Your task to perform on an android device: Open accessibility settings Image 0: 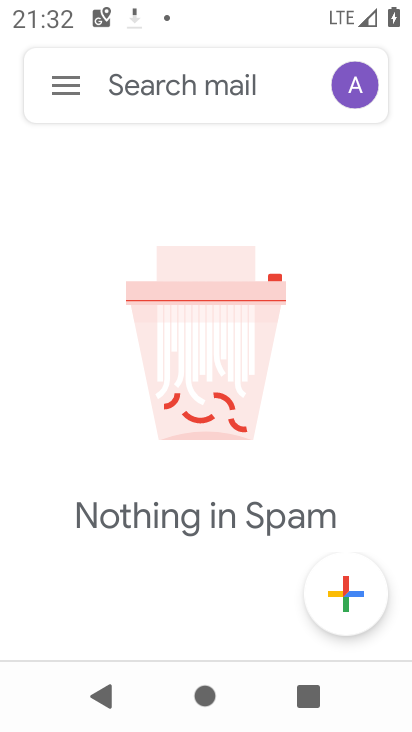
Step 0: press back button
Your task to perform on an android device: Open accessibility settings Image 1: 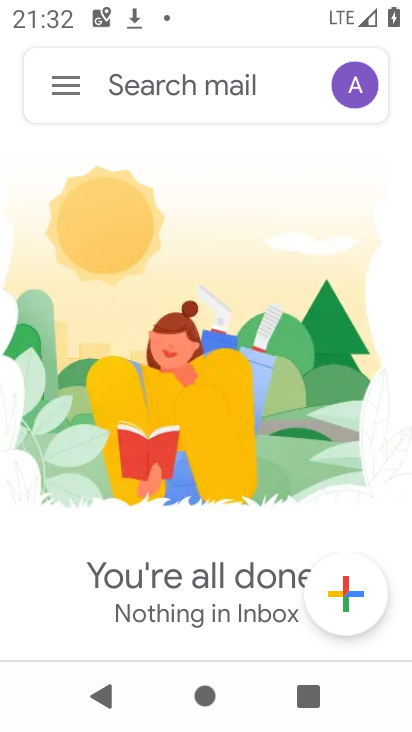
Step 1: press back button
Your task to perform on an android device: Open accessibility settings Image 2: 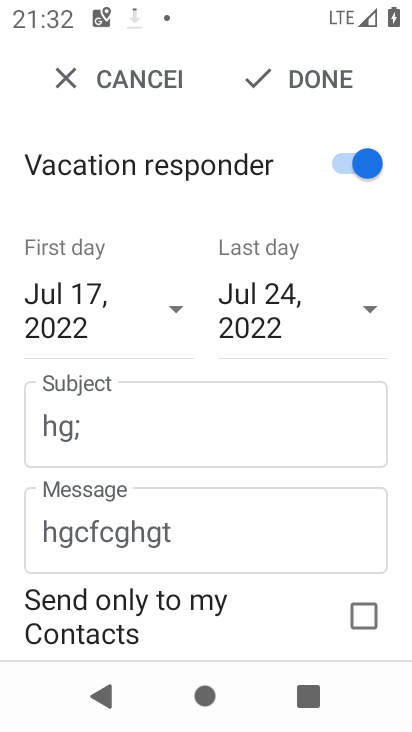
Step 2: press back button
Your task to perform on an android device: Open accessibility settings Image 3: 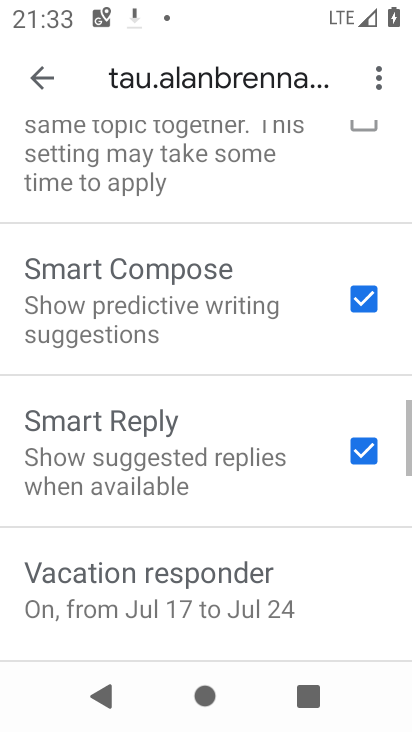
Step 3: press back button
Your task to perform on an android device: Open accessibility settings Image 4: 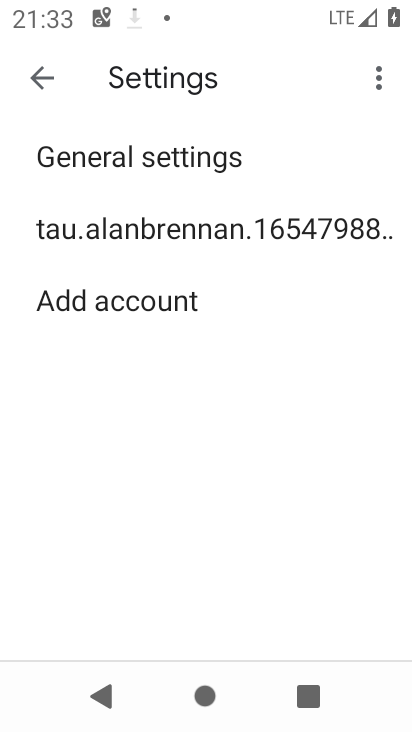
Step 4: press back button
Your task to perform on an android device: Open accessibility settings Image 5: 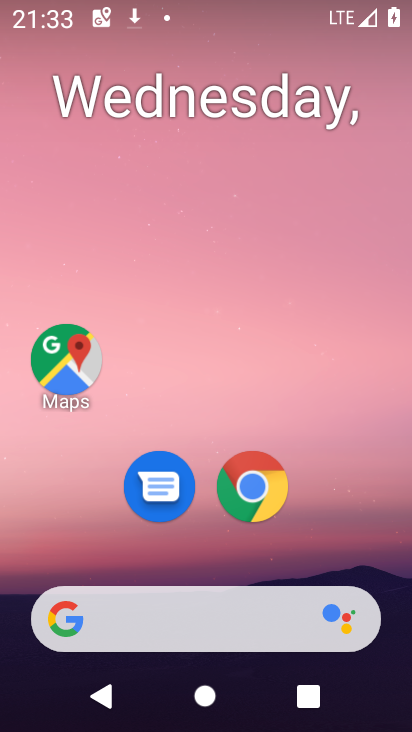
Step 5: drag from (213, 570) to (288, 14)
Your task to perform on an android device: Open accessibility settings Image 6: 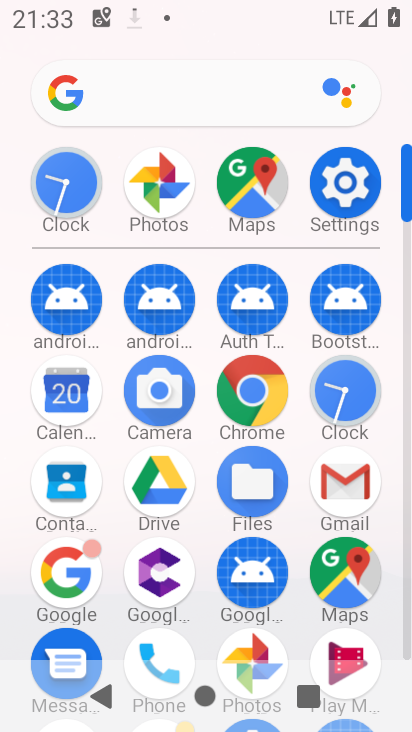
Step 6: click (348, 172)
Your task to perform on an android device: Open accessibility settings Image 7: 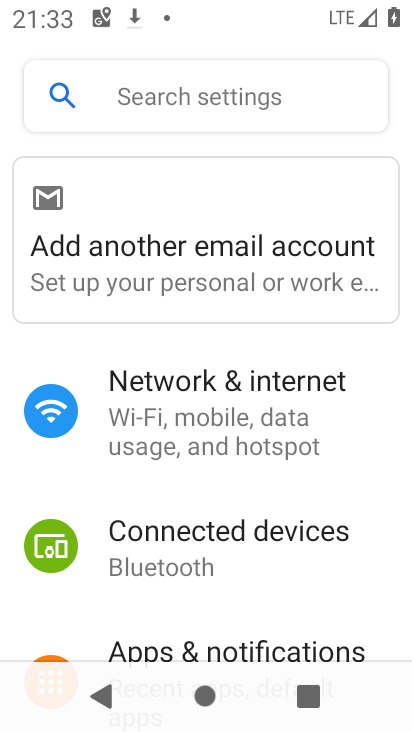
Step 7: drag from (277, 604) to (335, 87)
Your task to perform on an android device: Open accessibility settings Image 8: 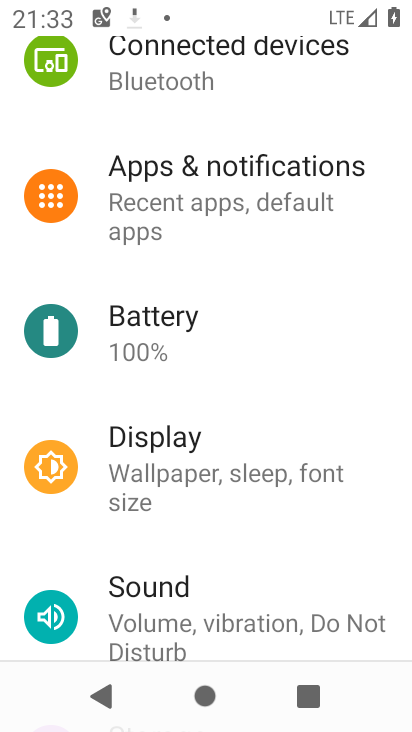
Step 8: drag from (179, 577) to (287, 70)
Your task to perform on an android device: Open accessibility settings Image 9: 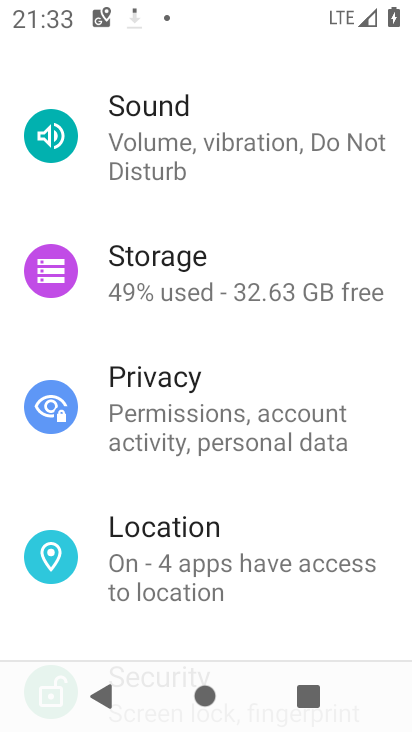
Step 9: drag from (161, 533) to (229, 172)
Your task to perform on an android device: Open accessibility settings Image 10: 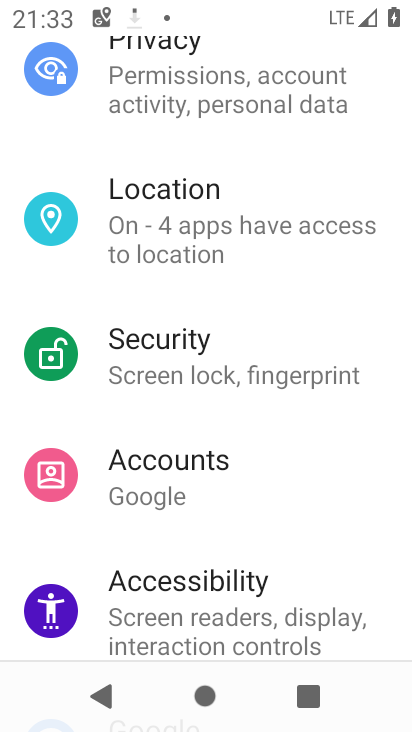
Step 10: click (164, 601)
Your task to perform on an android device: Open accessibility settings Image 11: 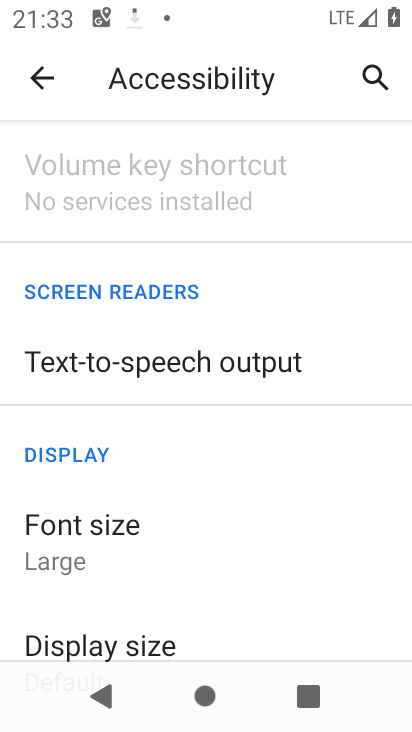
Step 11: task complete